Your task to perform on an android device: open the mobile data screen to see how much data has been used Image 0: 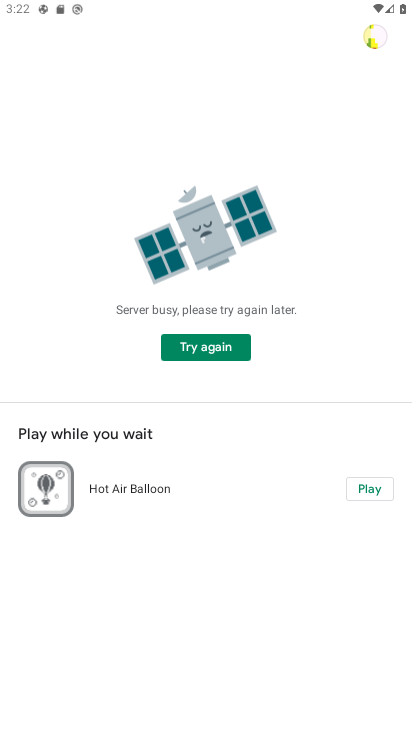
Step 0: press home button
Your task to perform on an android device: open the mobile data screen to see how much data has been used Image 1: 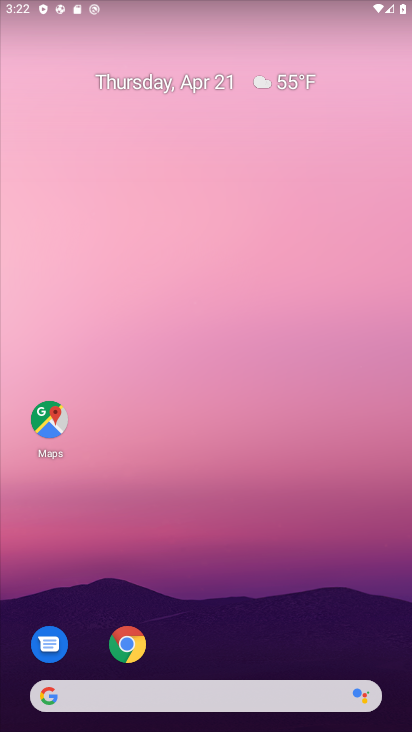
Step 1: drag from (221, 727) to (224, 52)
Your task to perform on an android device: open the mobile data screen to see how much data has been used Image 2: 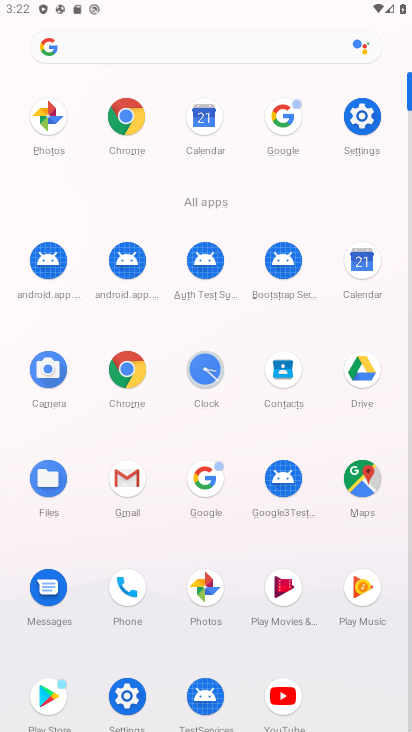
Step 2: click (363, 116)
Your task to perform on an android device: open the mobile data screen to see how much data has been used Image 3: 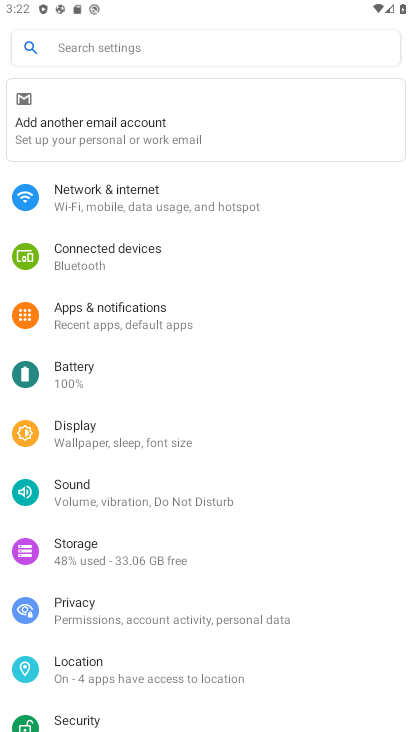
Step 3: click (141, 202)
Your task to perform on an android device: open the mobile data screen to see how much data has been used Image 4: 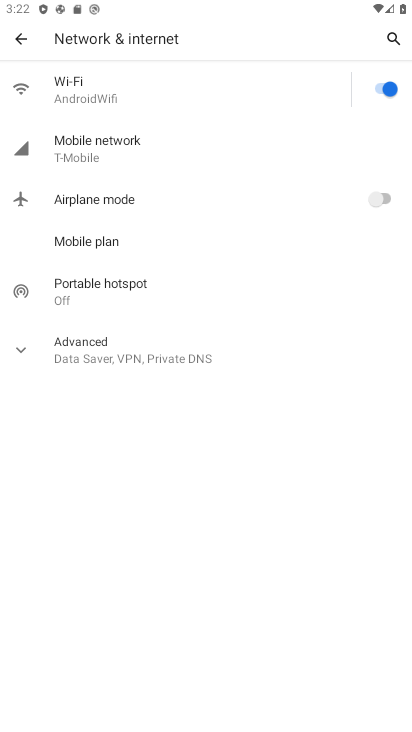
Step 4: click (75, 140)
Your task to perform on an android device: open the mobile data screen to see how much data has been used Image 5: 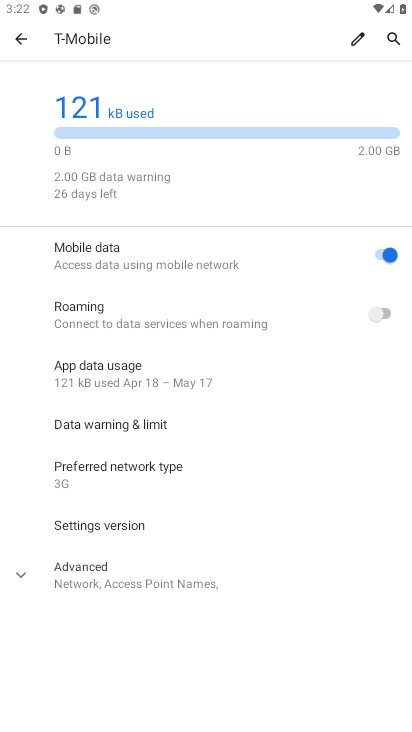
Step 5: click (123, 364)
Your task to perform on an android device: open the mobile data screen to see how much data has been used Image 6: 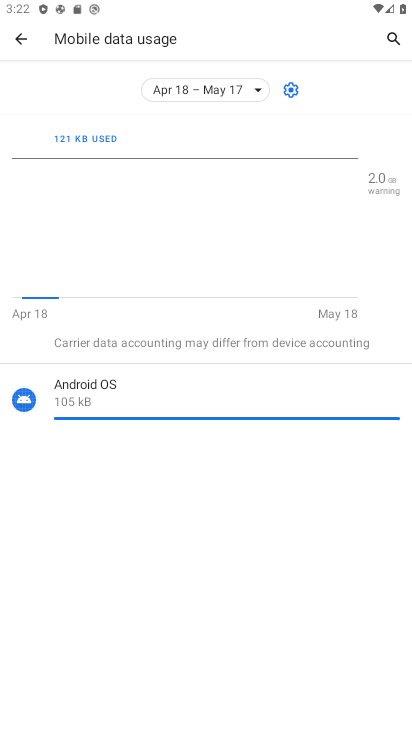
Step 6: task complete